Your task to perform on an android device: Open Chrome and go to the settings page Image 0: 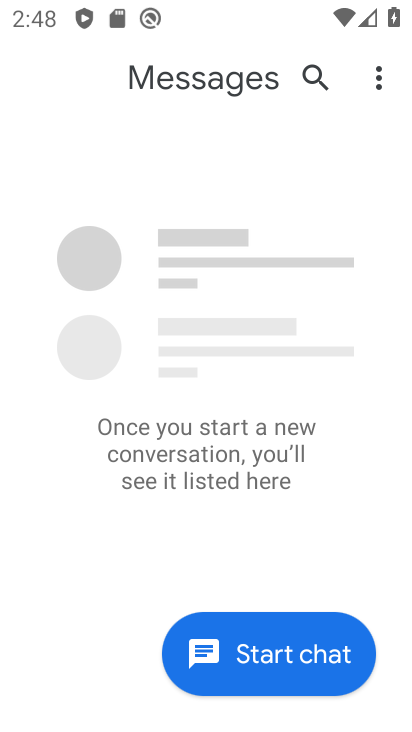
Step 0: press home button
Your task to perform on an android device: Open Chrome and go to the settings page Image 1: 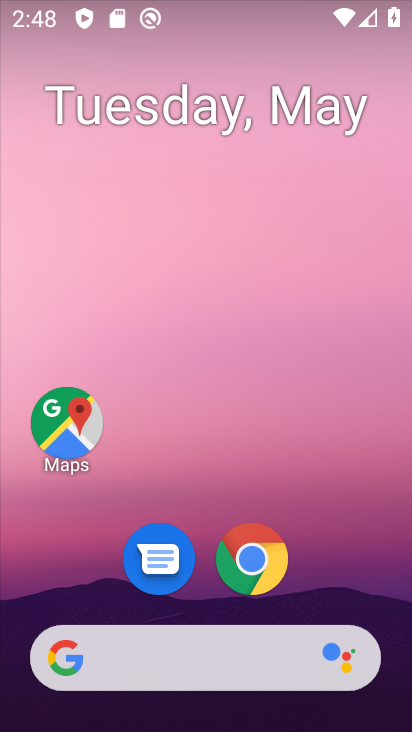
Step 1: click (256, 565)
Your task to perform on an android device: Open Chrome and go to the settings page Image 2: 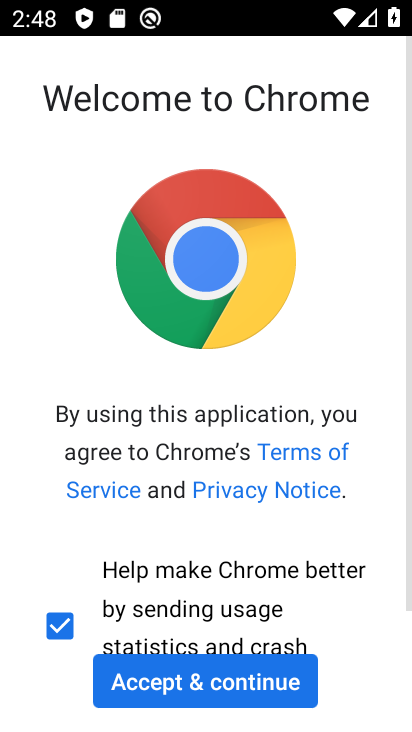
Step 2: click (256, 692)
Your task to perform on an android device: Open Chrome and go to the settings page Image 3: 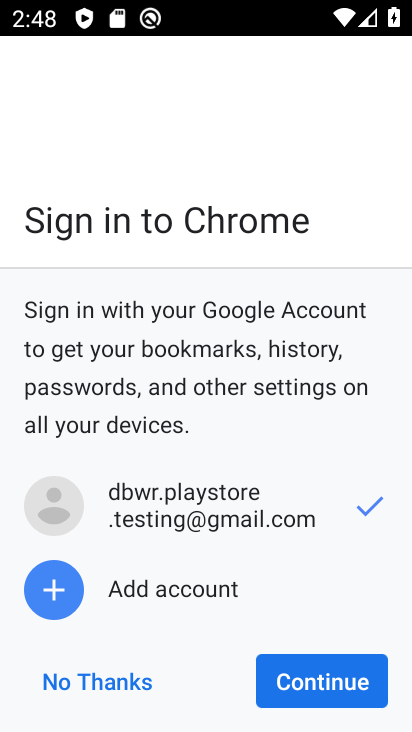
Step 3: click (362, 684)
Your task to perform on an android device: Open Chrome and go to the settings page Image 4: 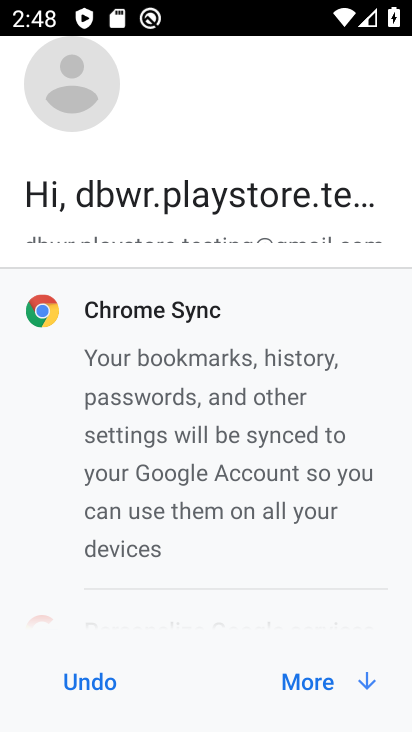
Step 4: click (350, 684)
Your task to perform on an android device: Open Chrome and go to the settings page Image 5: 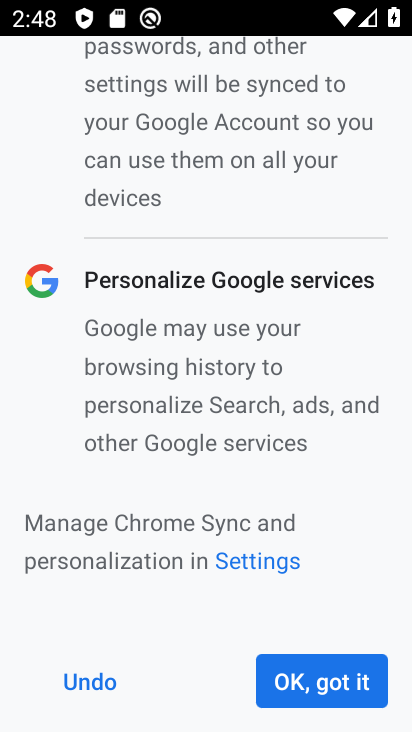
Step 5: click (351, 686)
Your task to perform on an android device: Open Chrome and go to the settings page Image 6: 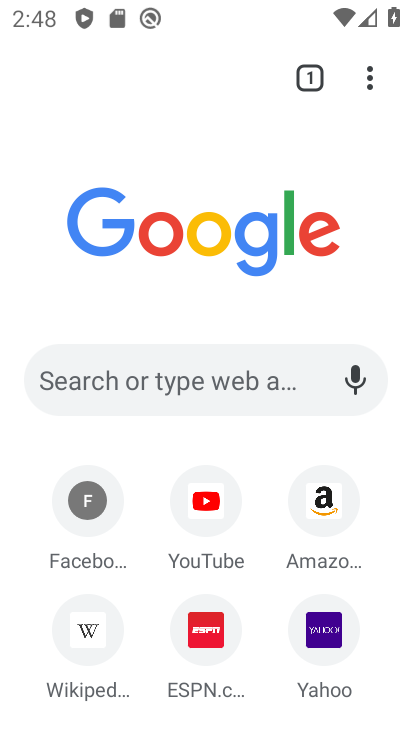
Step 6: task complete